Your task to perform on an android device: turn on location history Image 0: 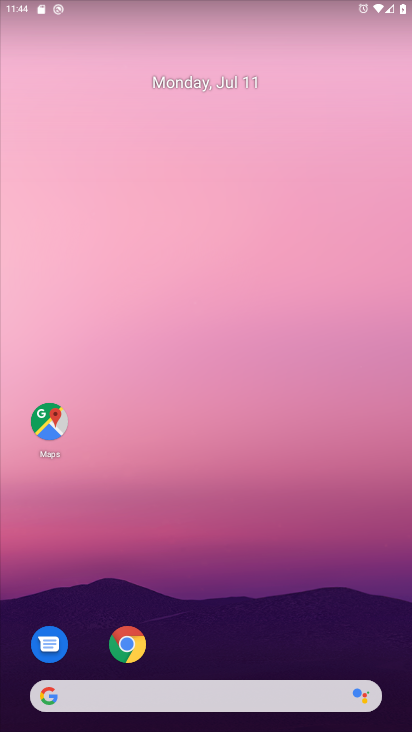
Step 0: drag from (254, 537) to (254, 103)
Your task to perform on an android device: turn on location history Image 1: 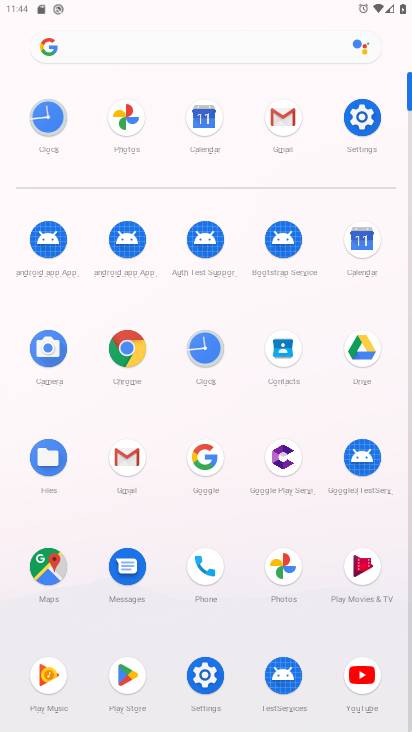
Step 1: click (367, 117)
Your task to perform on an android device: turn on location history Image 2: 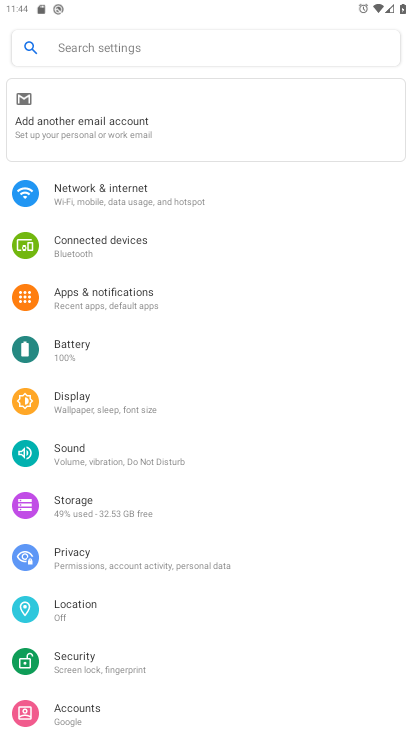
Step 2: click (109, 612)
Your task to perform on an android device: turn on location history Image 3: 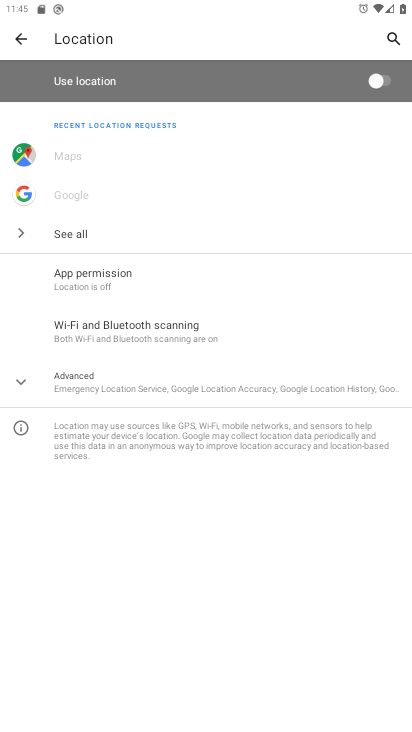
Step 3: click (165, 379)
Your task to perform on an android device: turn on location history Image 4: 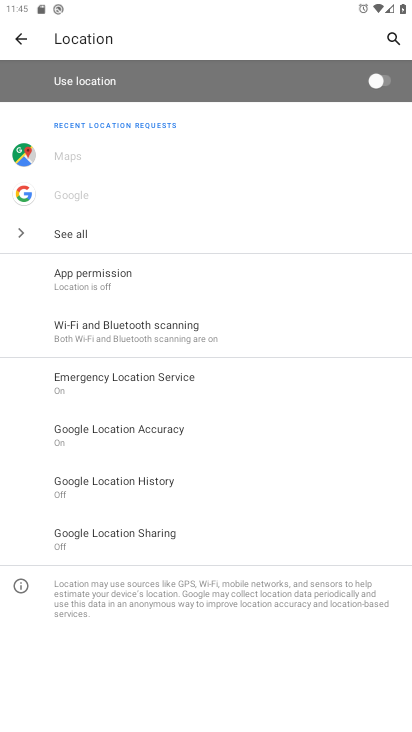
Step 4: click (131, 486)
Your task to perform on an android device: turn on location history Image 5: 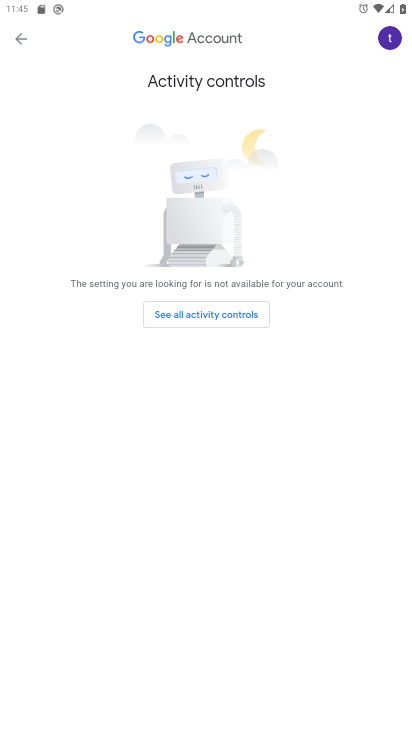
Step 5: click (234, 315)
Your task to perform on an android device: turn on location history Image 6: 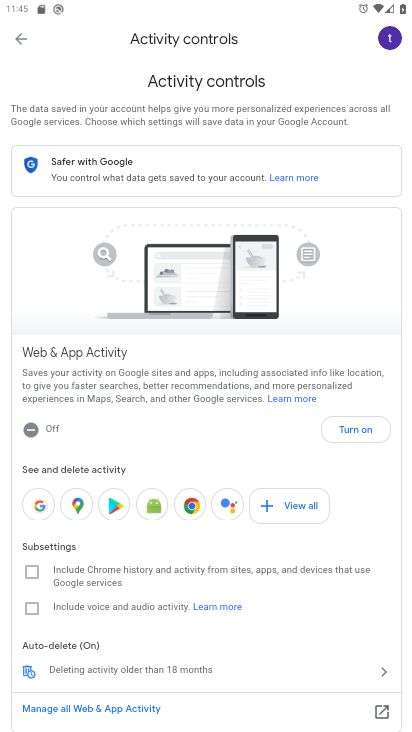
Step 6: task complete